Your task to perform on an android device: Show me popular videos on Youtube Image 0: 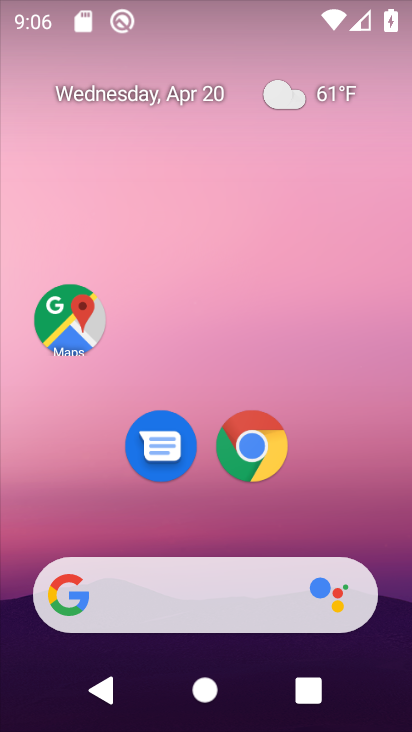
Step 0: drag from (360, 501) to (361, 65)
Your task to perform on an android device: Show me popular videos on Youtube Image 1: 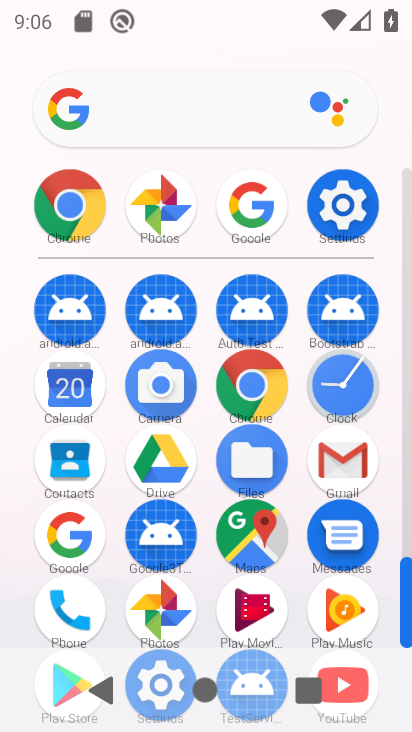
Step 1: drag from (294, 489) to (307, 247)
Your task to perform on an android device: Show me popular videos on Youtube Image 2: 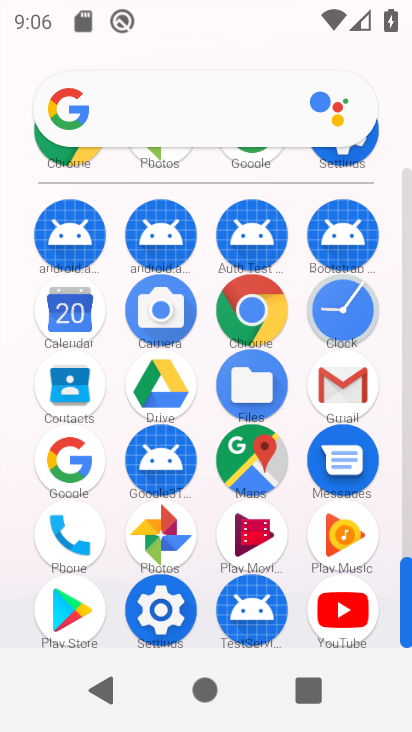
Step 2: click (362, 605)
Your task to perform on an android device: Show me popular videos on Youtube Image 3: 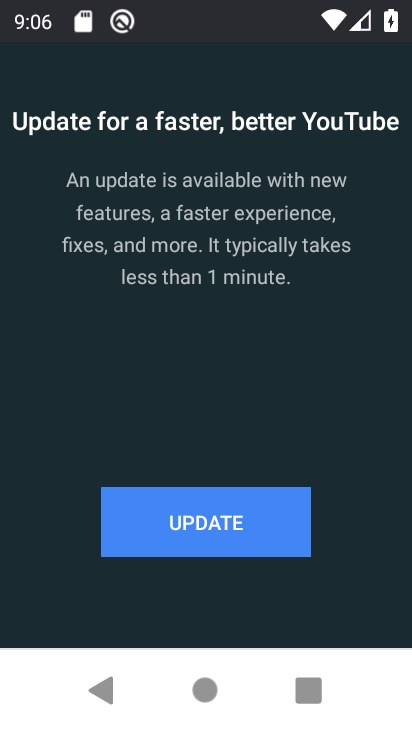
Step 3: click (254, 541)
Your task to perform on an android device: Show me popular videos on Youtube Image 4: 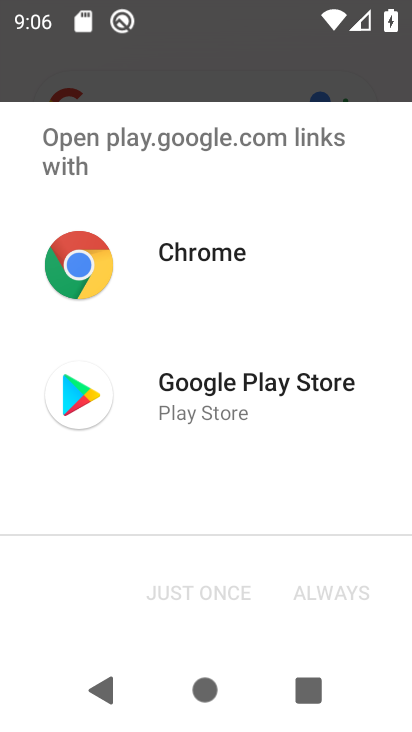
Step 4: click (220, 388)
Your task to perform on an android device: Show me popular videos on Youtube Image 5: 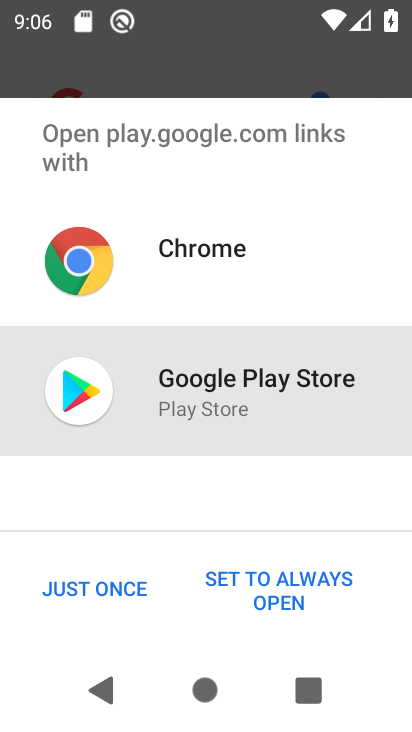
Step 5: click (109, 590)
Your task to perform on an android device: Show me popular videos on Youtube Image 6: 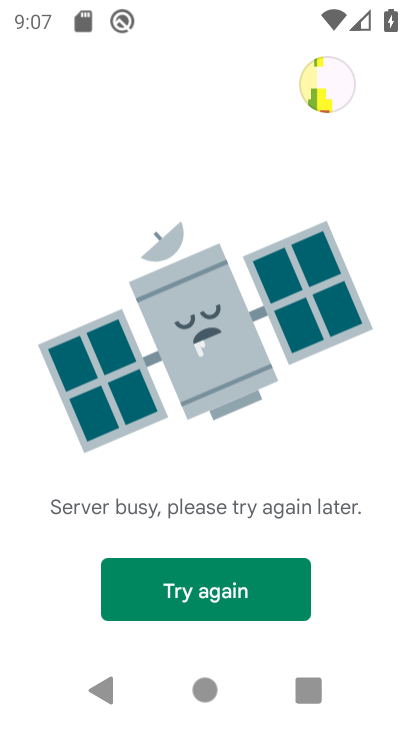
Step 6: task complete